Your task to perform on an android device: toggle show notifications on the lock screen Image 0: 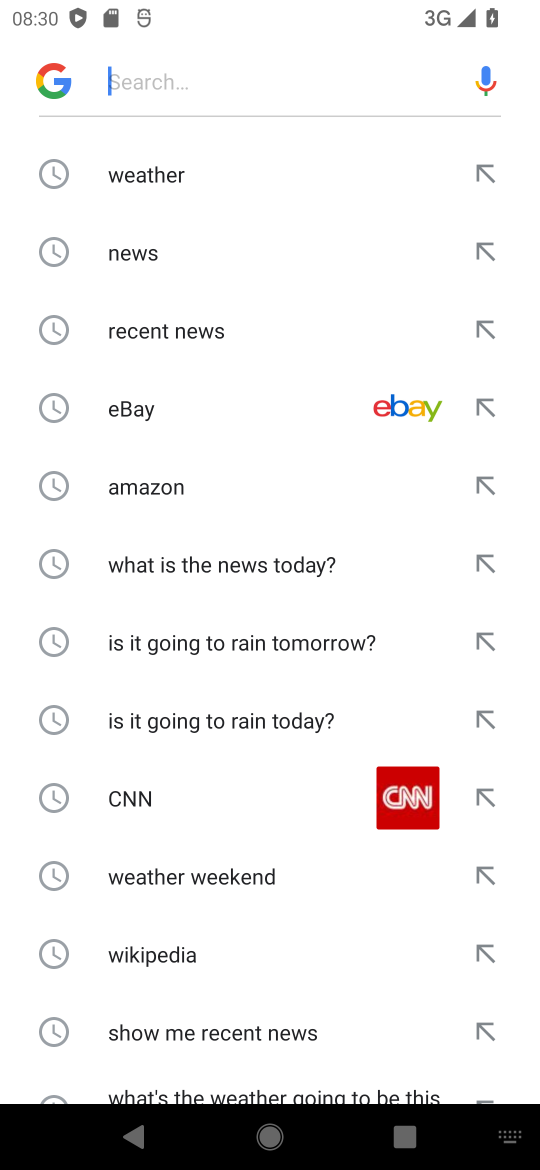
Step 0: press home button
Your task to perform on an android device: toggle show notifications on the lock screen Image 1: 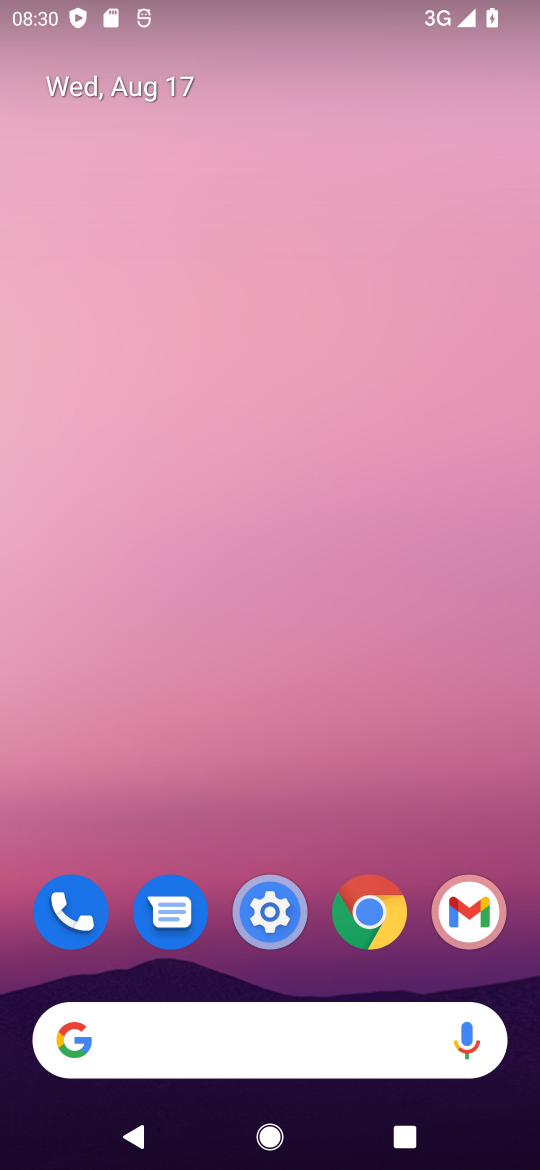
Step 1: drag from (244, 823) to (244, 223)
Your task to perform on an android device: toggle show notifications on the lock screen Image 2: 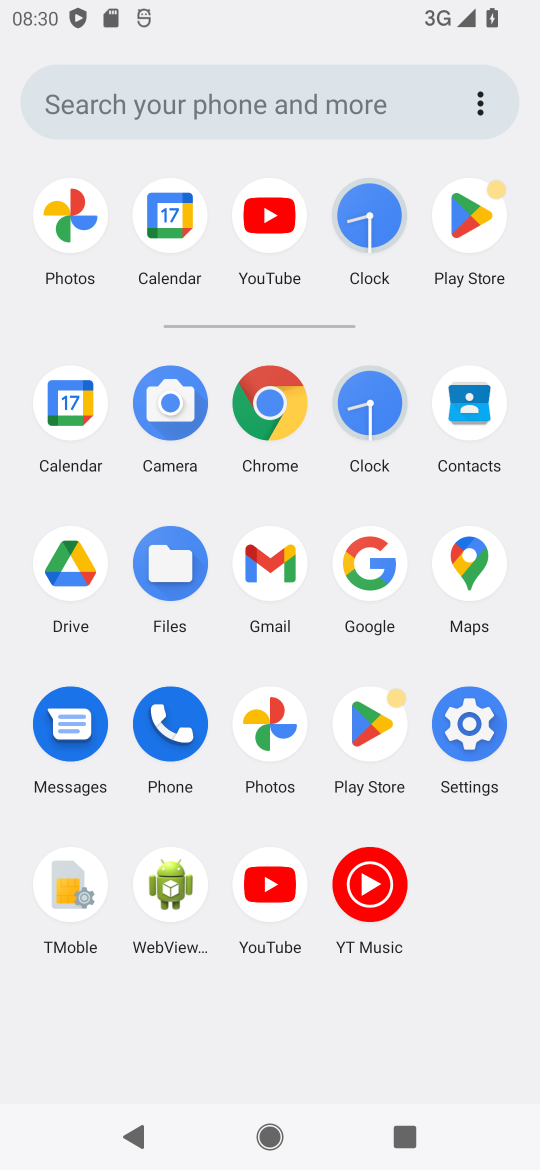
Step 2: click (494, 743)
Your task to perform on an android device: toggle show notifications on the lock screen Image 3: 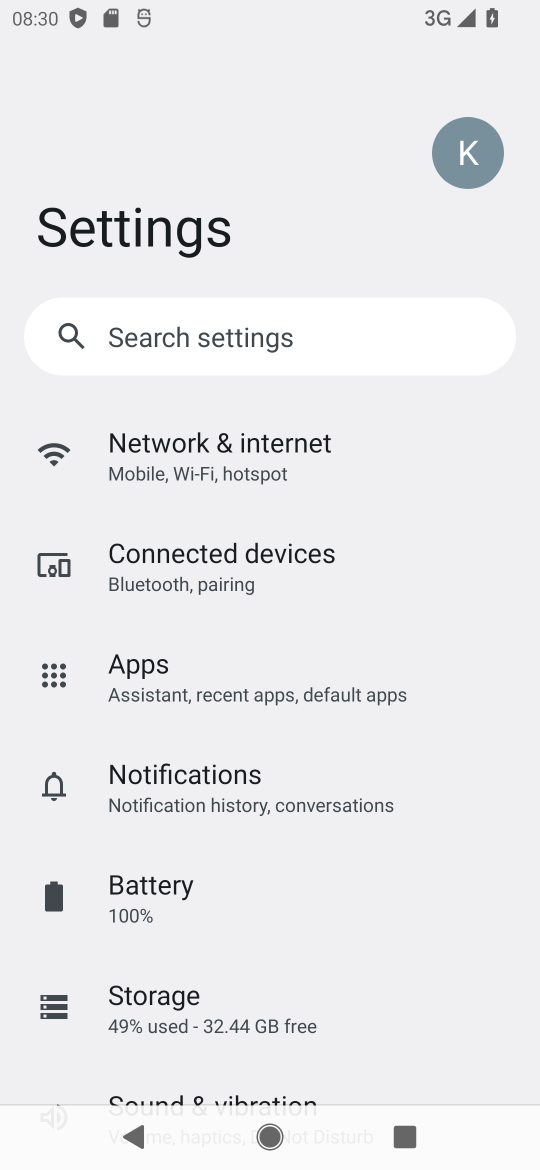
Step 3: drag from (180, 1014) to (180, 535)
Your task to perform on an android device: toggle show notifications on the lock screen Image 4: 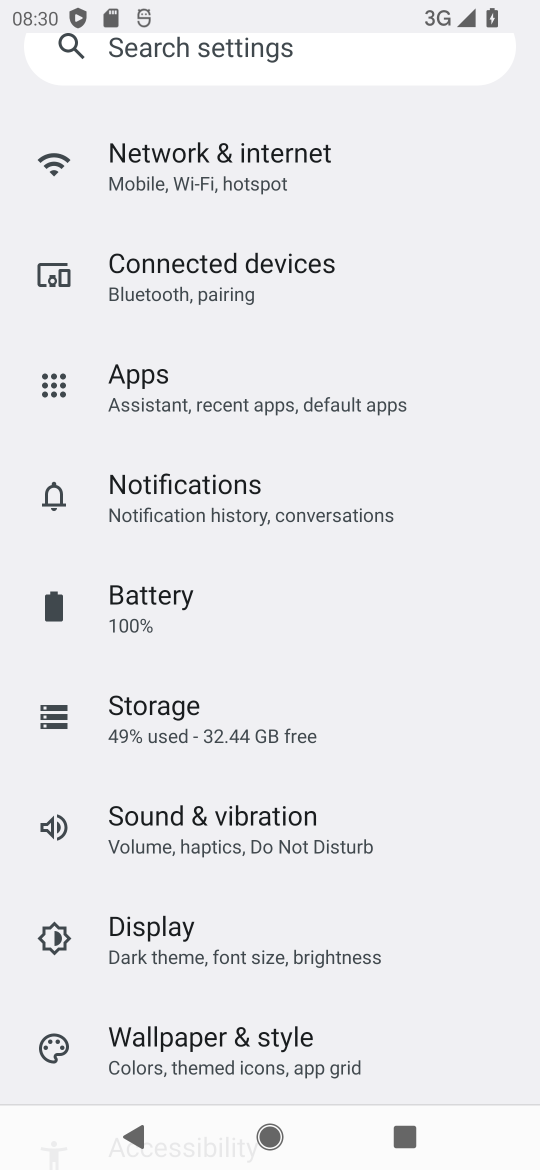
Step 4: drag from (194, 1051) to (226, 390)
Your task to perform on an android device: toggle show notifications on the lock screen Image 5: 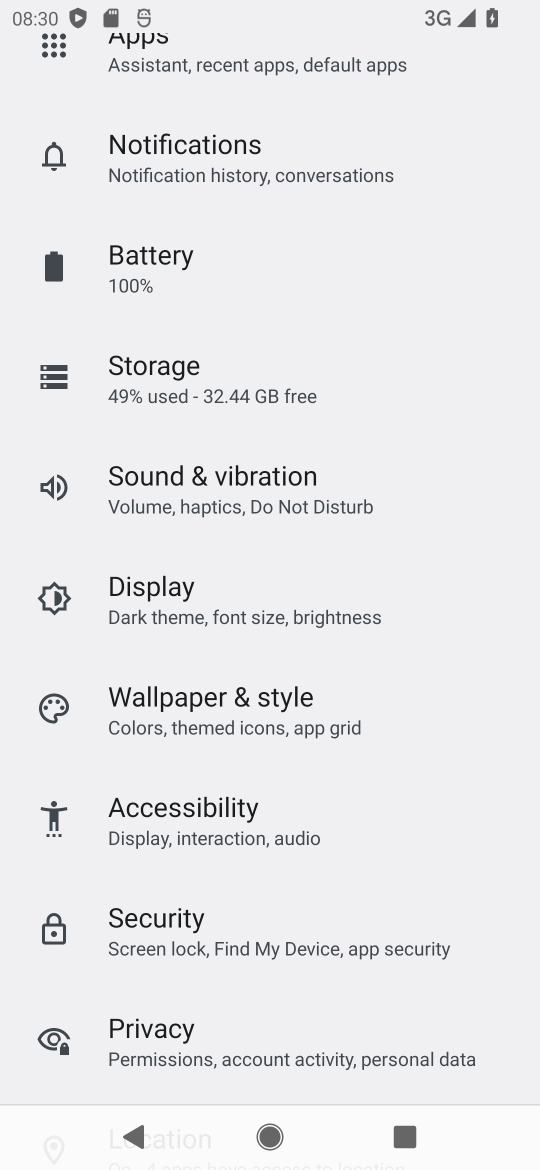
Step 5: click (193, 1035)
Your task to perform on an android device: toggle show notifications on the lock screen Image 6: 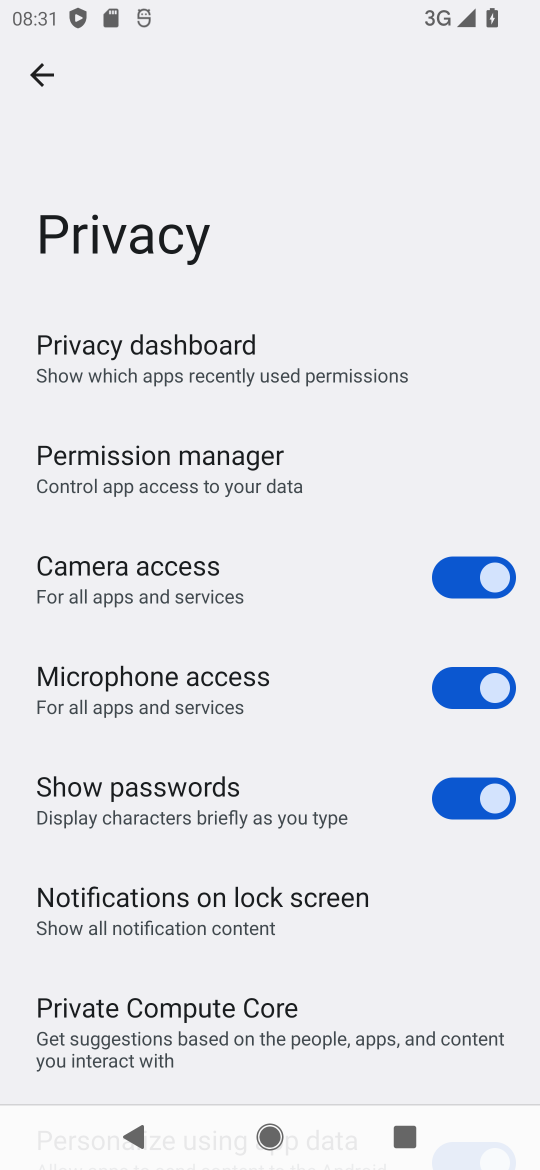
Step 6: drag from (86, 995) to (78, 421)
Your task to perform on an android device: toggle show notifications on the lock screen Image 7: 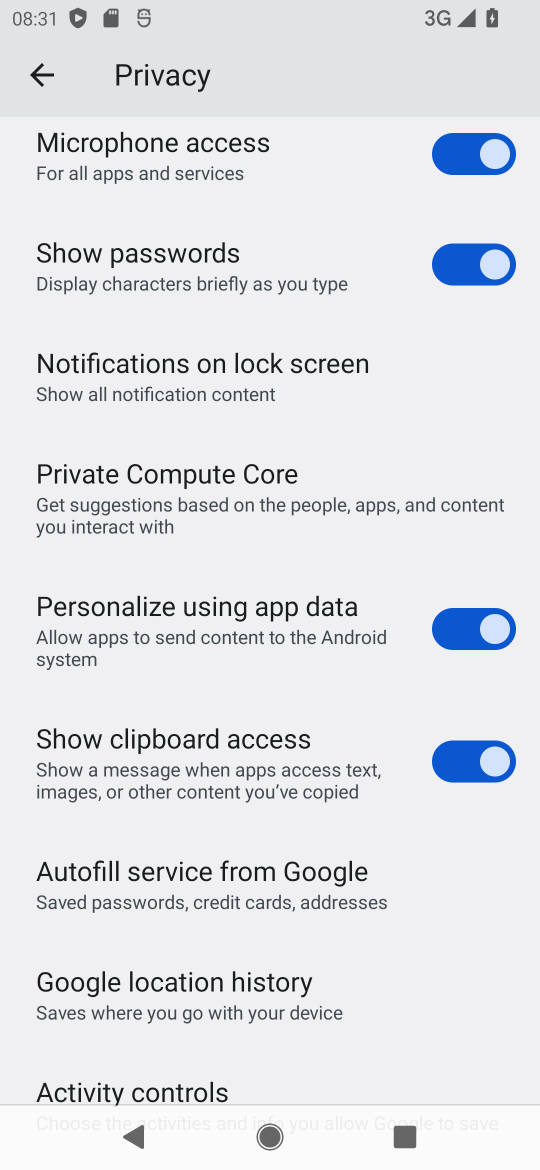
Step 7: click (111, 386)
Your task to perform on an android device: toggle show notifications on the lock screen Image 8: 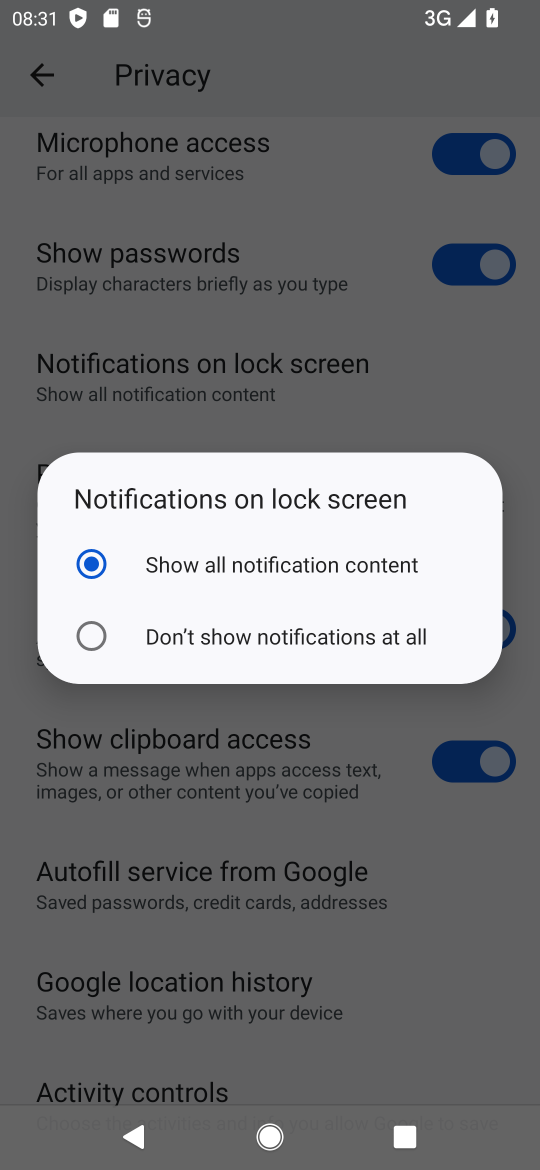
Step 8: click (158, 642)
Your task to perform on an android device: toggle show notifications on the lock screen Image 9: 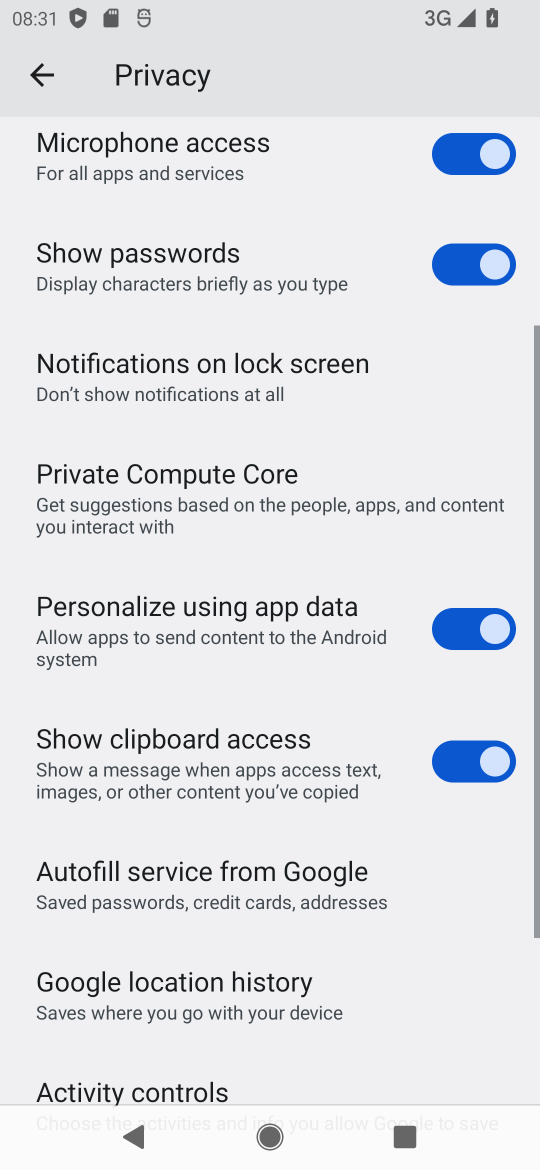
Step 9: task complete